Your task to perform on an android device: Go to Android settings Image 0: 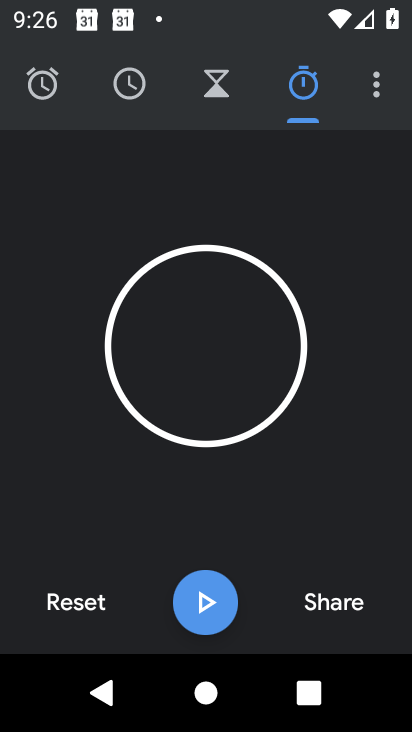
Step 0: press home button
Your task to perform on an android device: Go to Android settings Image 1: 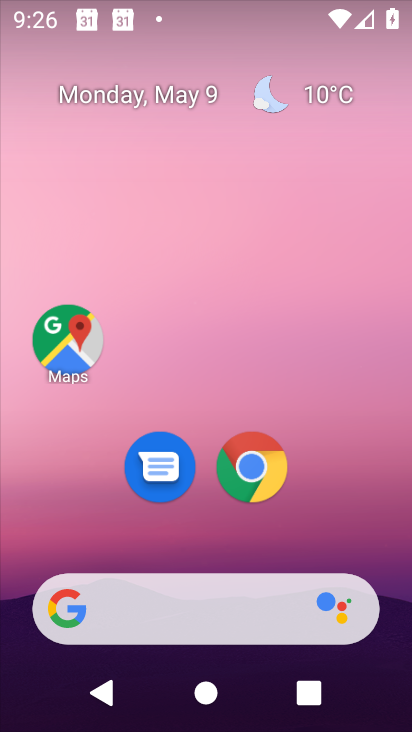
Step 1: drag from (369, 529) to (313, 10)
Your task to perform on an android device: Go to Android settings Image 2: 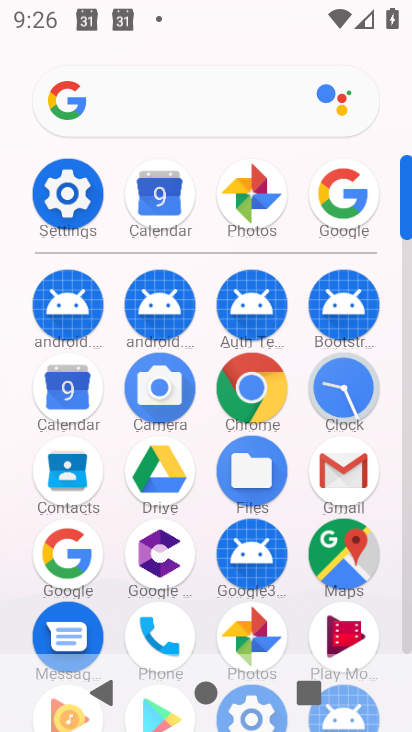
Step 2: click (90, 198)
Your task to perform on an android device: Go to Android settings Image 3: 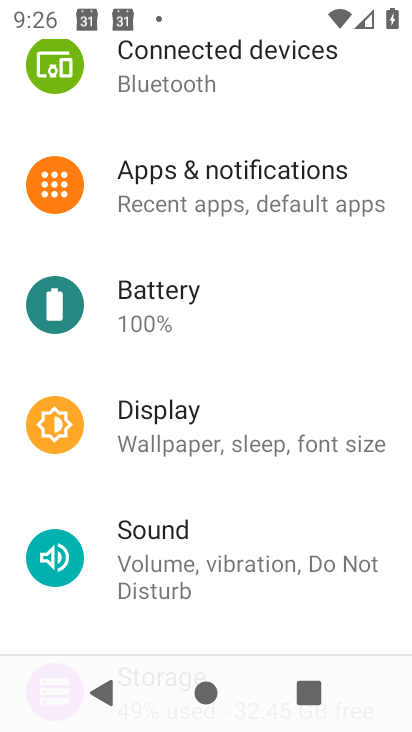
Step 3: task complete